Your task to perform on an android device: turn on improve location accuracy Image 0: 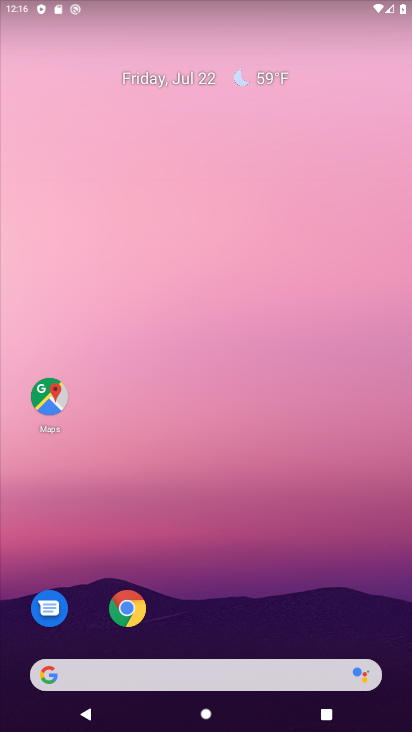
Step 0: drag from (256, 559) to (271, 128)
Your task to perform on an android device: turn on improve location accuracy Image 1: 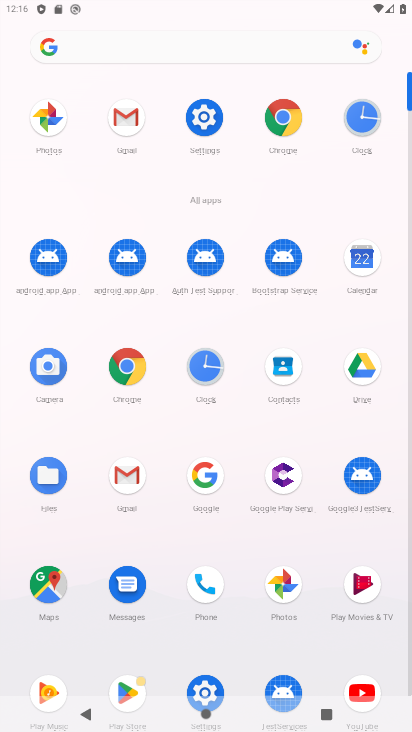
Step 1: drag from (224, 614) to (239, 341)
Your task to perform on an android device: turn on improve location accuracy Image 2: 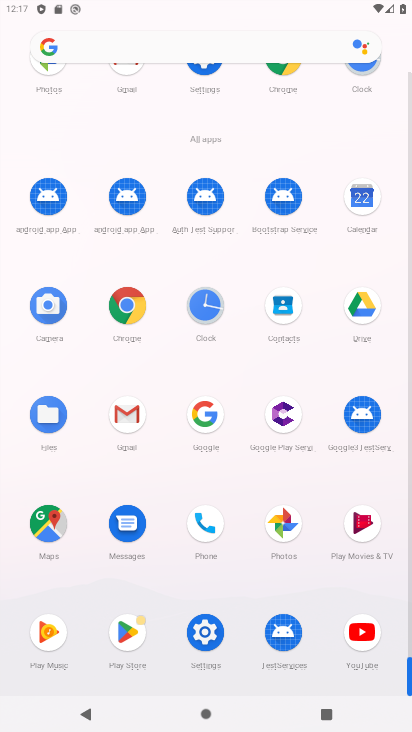
Step 2: click (221, 636)
Your task to perform on an android device: turn on improve location accuracy Image 3: 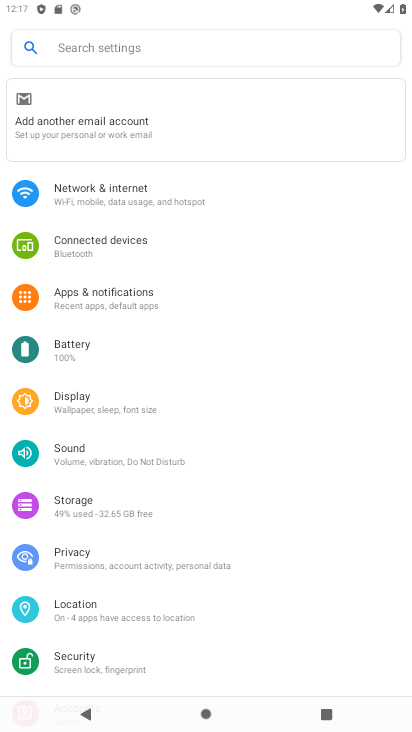
Step 3: click (110, 618)
Your task to perform on an android device: turn on improve location accuracy Image 4: 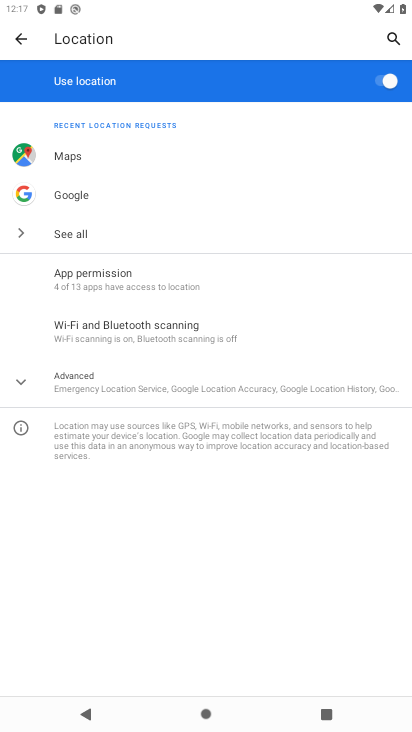
Step 4: click (126, 392)
Your task to perform on an android device: turn on improve location accuracy Image 5: 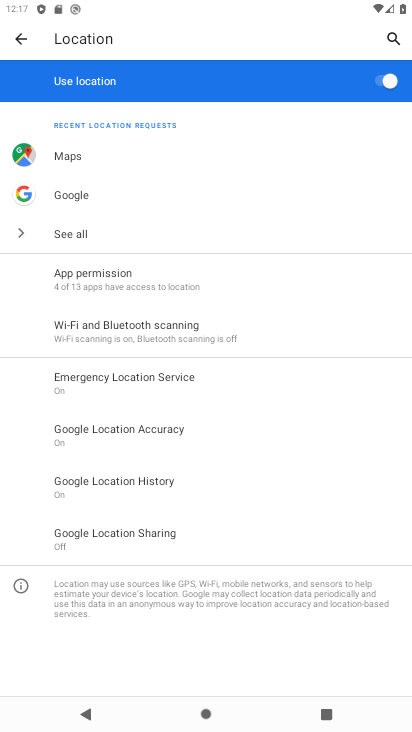
Step 5: click (163, 437)
Your task to perform on an android device: turn on improve location accuracy Image 6: 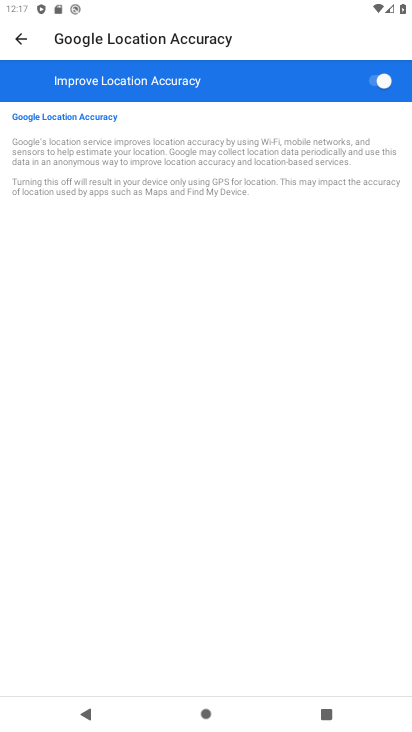
Step 6: task complete